Your task to perform on an android device: turn on showing notifications on the lock screen Image 0: 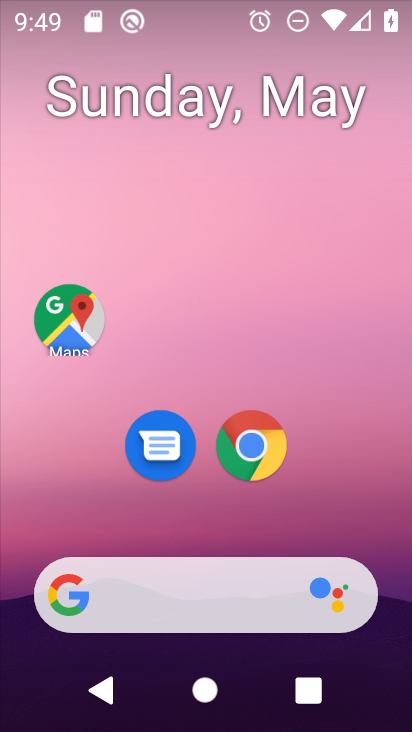
Step 0: drag from (222, 558) to (370, 85)
Your task to perform on an android device: turn on showing notifications on the lock screen Image 1: 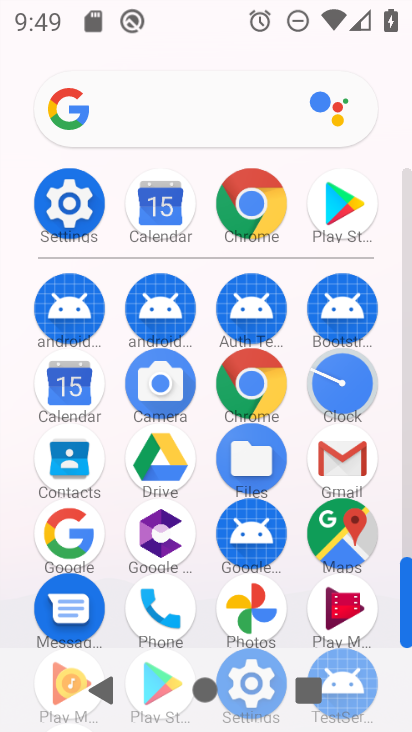
Step 1: click (62, 213)
Your task to perform on an android device: turn on showing notifications on the lock screen Image 2: 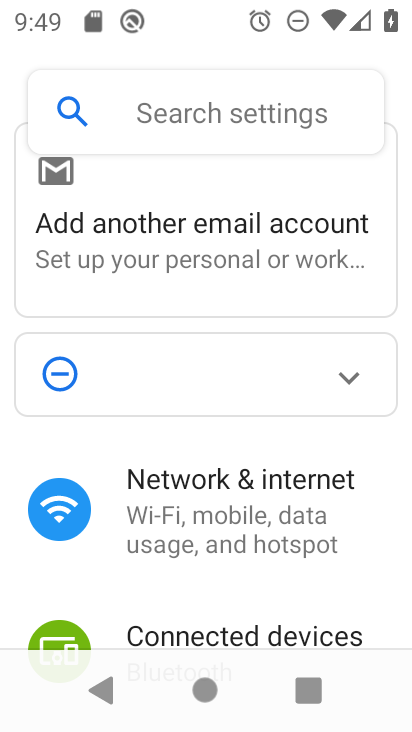
Step 2: drag from (247, 500) to (291, 152)
Your task to perform on an android device: turn on showing notifications on the lock screen Image 3: 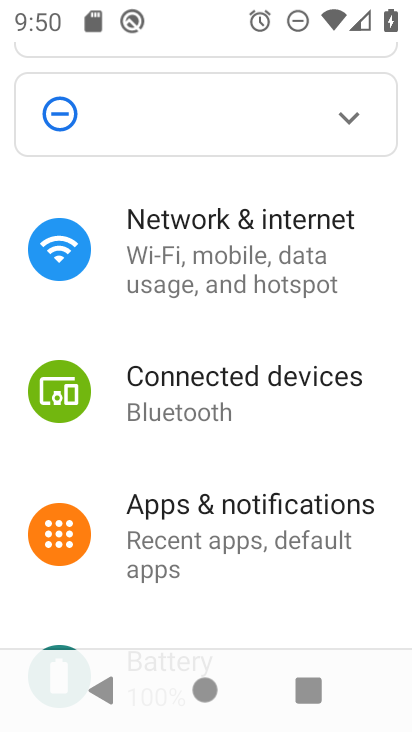
Step 3: drag from (265, 485) to (223, 202)
Your task to perform on an android device: turn on showing notifications on the lock screen Image 4: 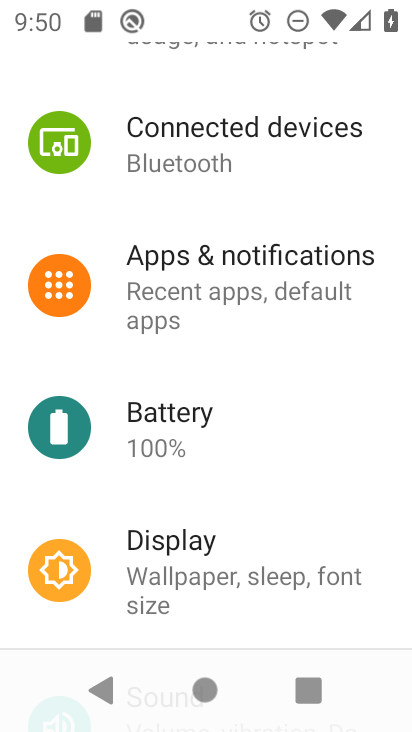
Step 4: click (252, 272)
Your task to perform on an android device: turn on showing notifications on the lock screen Image 5: 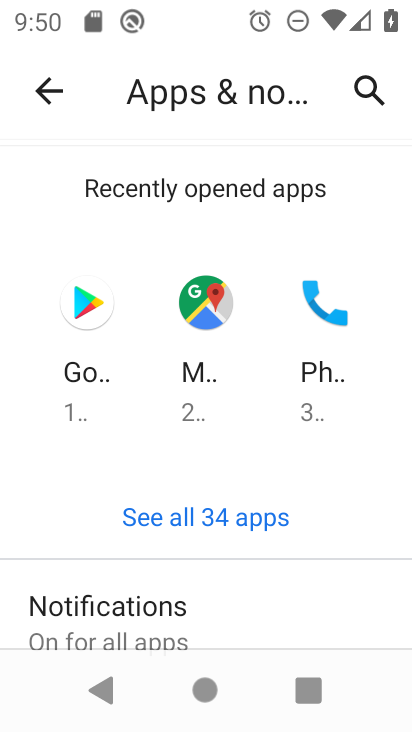
Step 5: click (178, 633)
Your task to perform on an android device: turn on showing notifications on the lock screen Image 6: 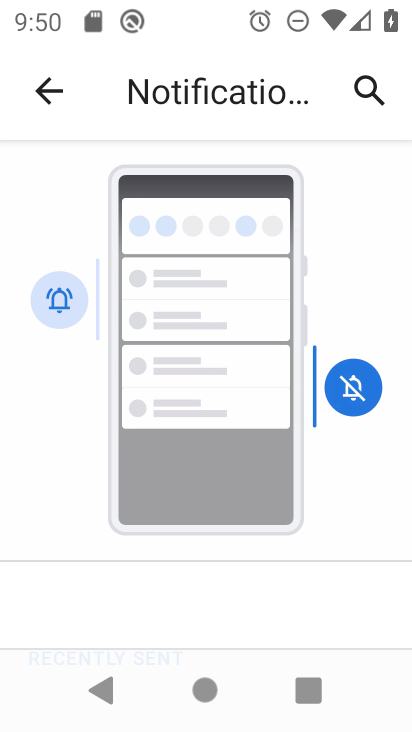
Step 6: drag from (95, 466) to (159, 29)
Your task to perform on an android device: turn on showing notifications on the lock screen Image 7: 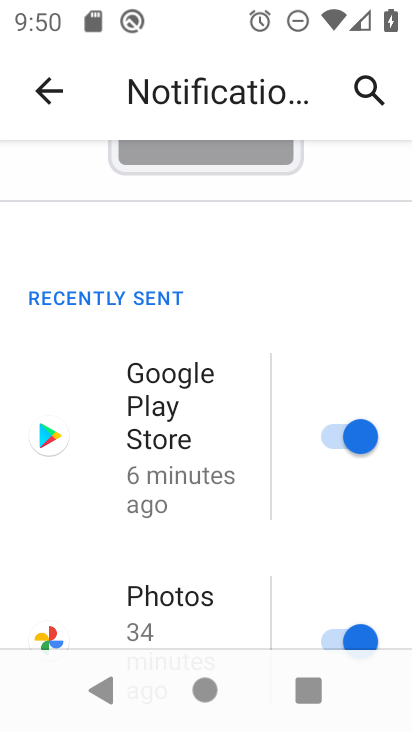
Step 7: drag from (157, 475) to (235, 6)
Your task to perform on an android device: turn on showing notifications on the lock screen Image 8: 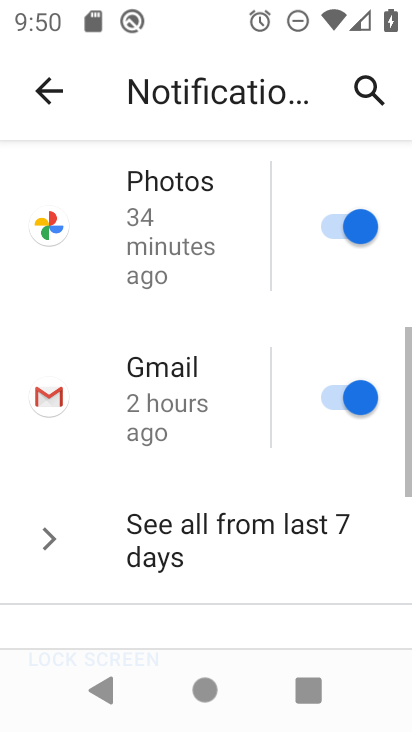
Step 8: drag from (189, 489) to (224, 150)
Your task to perform on an android device: turn on showing notifications on the lock screen Image 9: 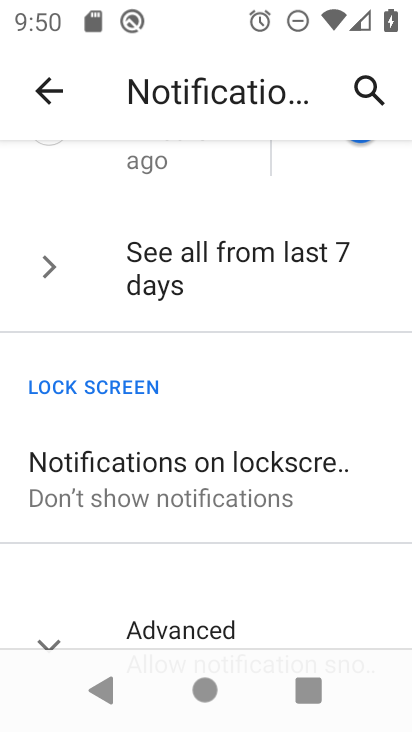
Step 9: click (214, 492)
Your task to perform on an android device: turn on showing notifications on the lock screen Image 10: 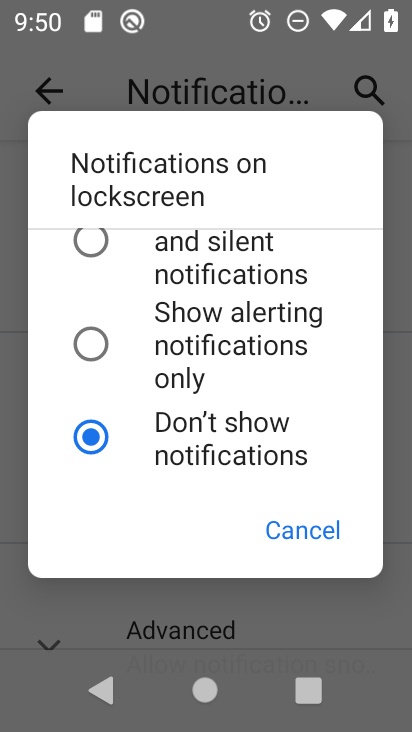
Step 10: drag from (197, 349) to (199, 622)
Your task to perform on an android device: turn on showing notifications on the lock screen Image 11: 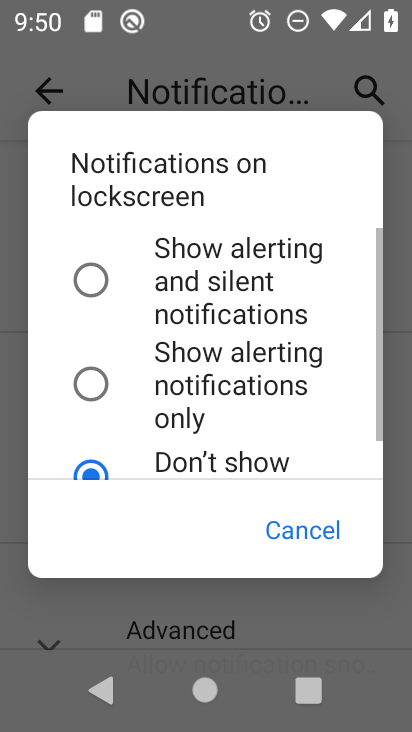
Step 11: click (98, 268)
Your task to perform on an android device: turn on showing notifications on the lock screen Image 12: 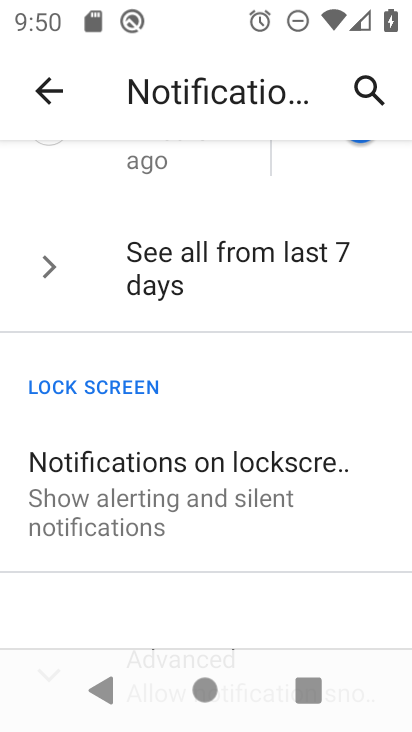
Step 12: task complete